Your task to perform on an android device: remove spam from my inbox in the gmail app Image 0: 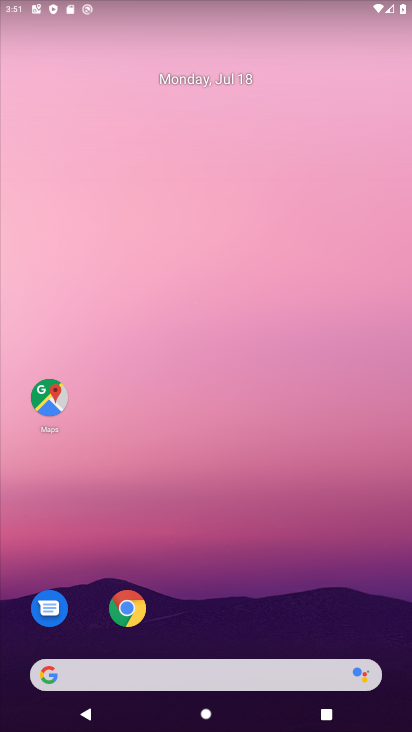
Step 0: drag from (254, 579) to (272, 248)
Your task to perform on an android device: remove spam from my inbox in the gmail app Image 1: 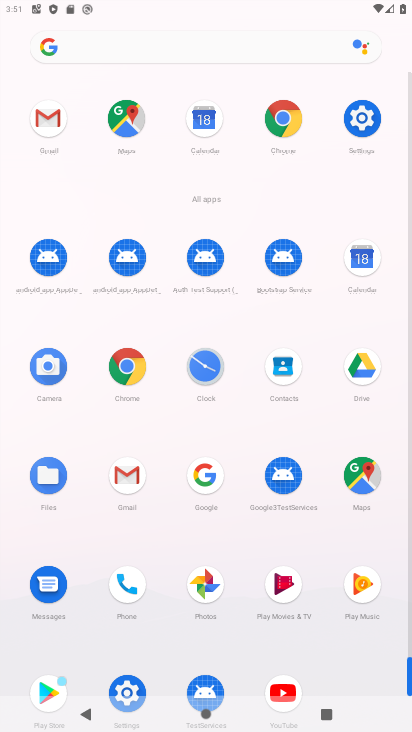
Step 1: click (131, 481)
Your task to perform on an android device: remove spam from my inbox in the gmail app Image 2: 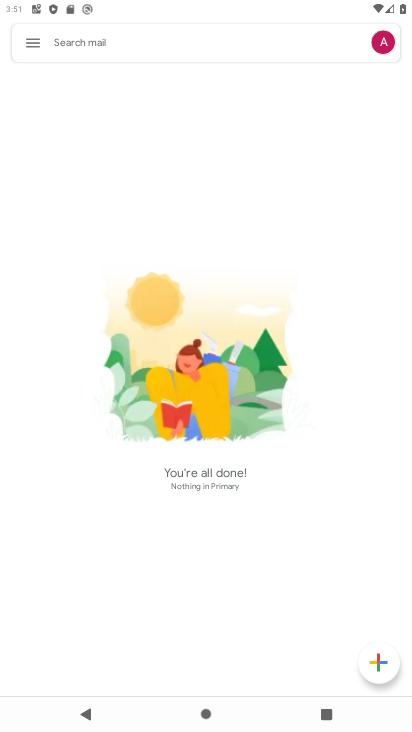
Step 2: click (32, 49)
Your task to perform on an android device: remove spam from my inbox in the gmail app Image 3: 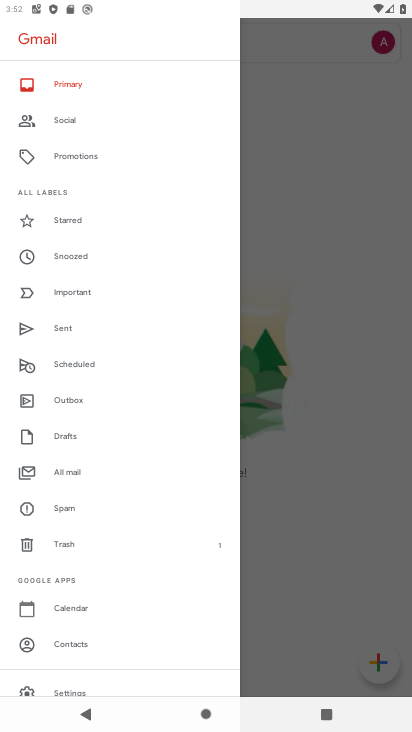
Step 3: task complete